Your task to perform on an android device: uninstall "The Home Depot" Image 0: 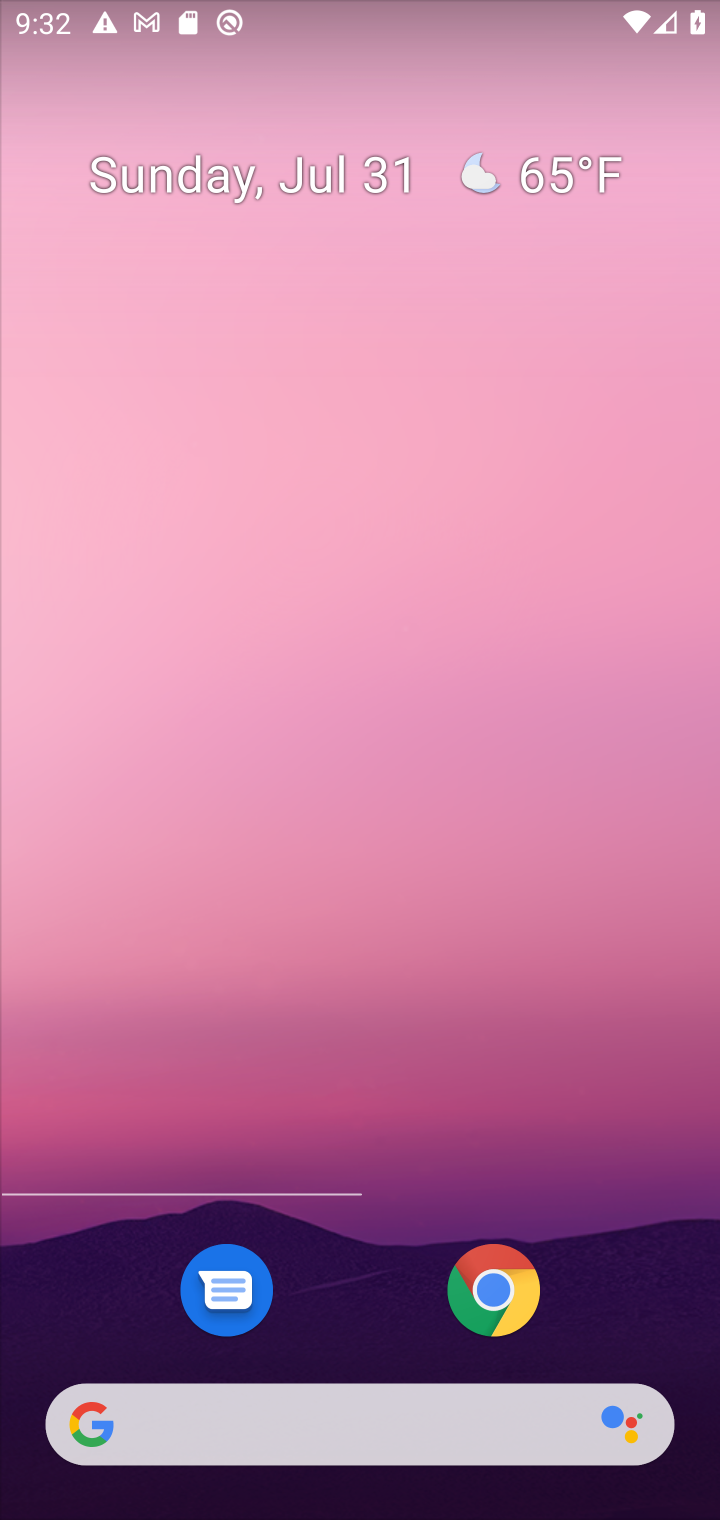
Step 0: press home button
Your task to perform on an android device: uninstall "The Home Depot" Image 1: 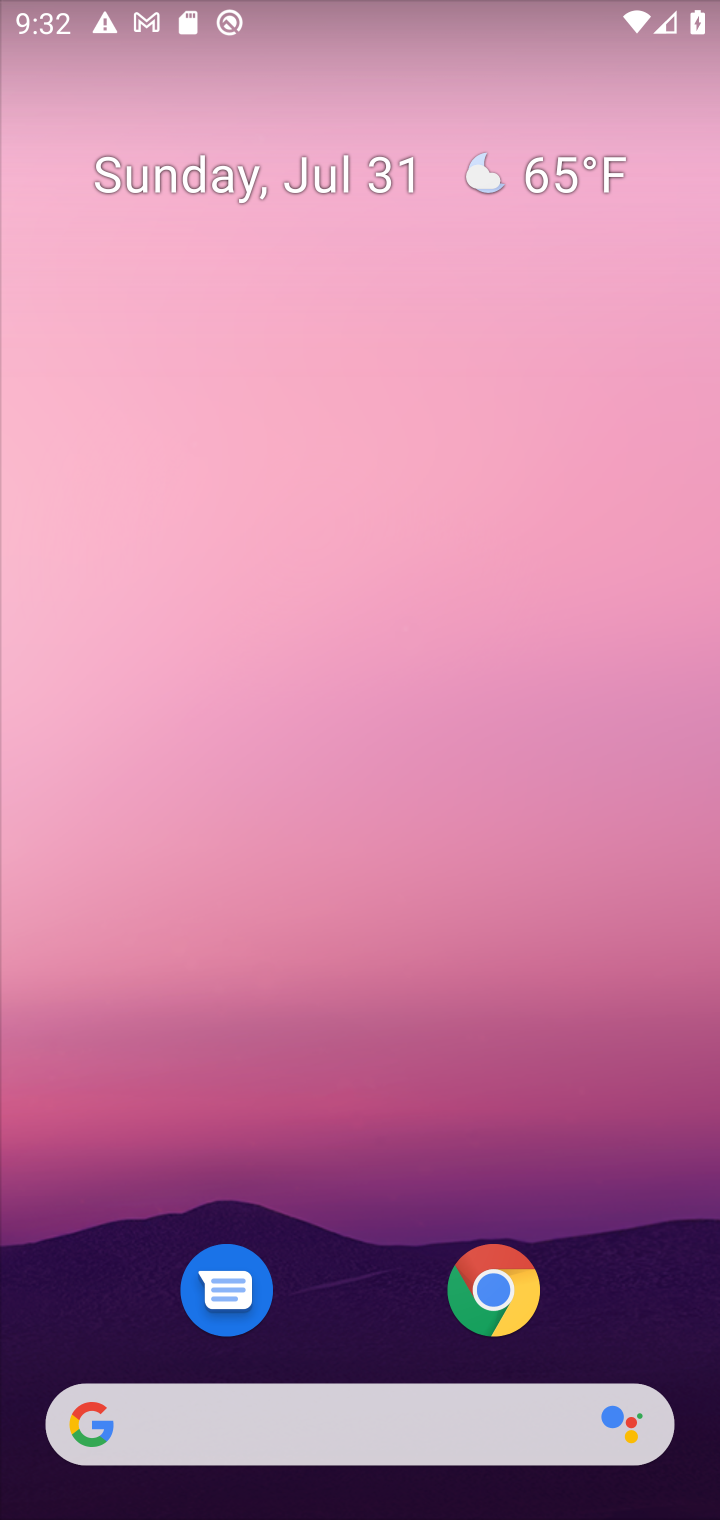
Step 1: drag from (576, 1306) to (517, 124)
Your task to perform on an android device: uninstall "The Home Depot" Image 2: 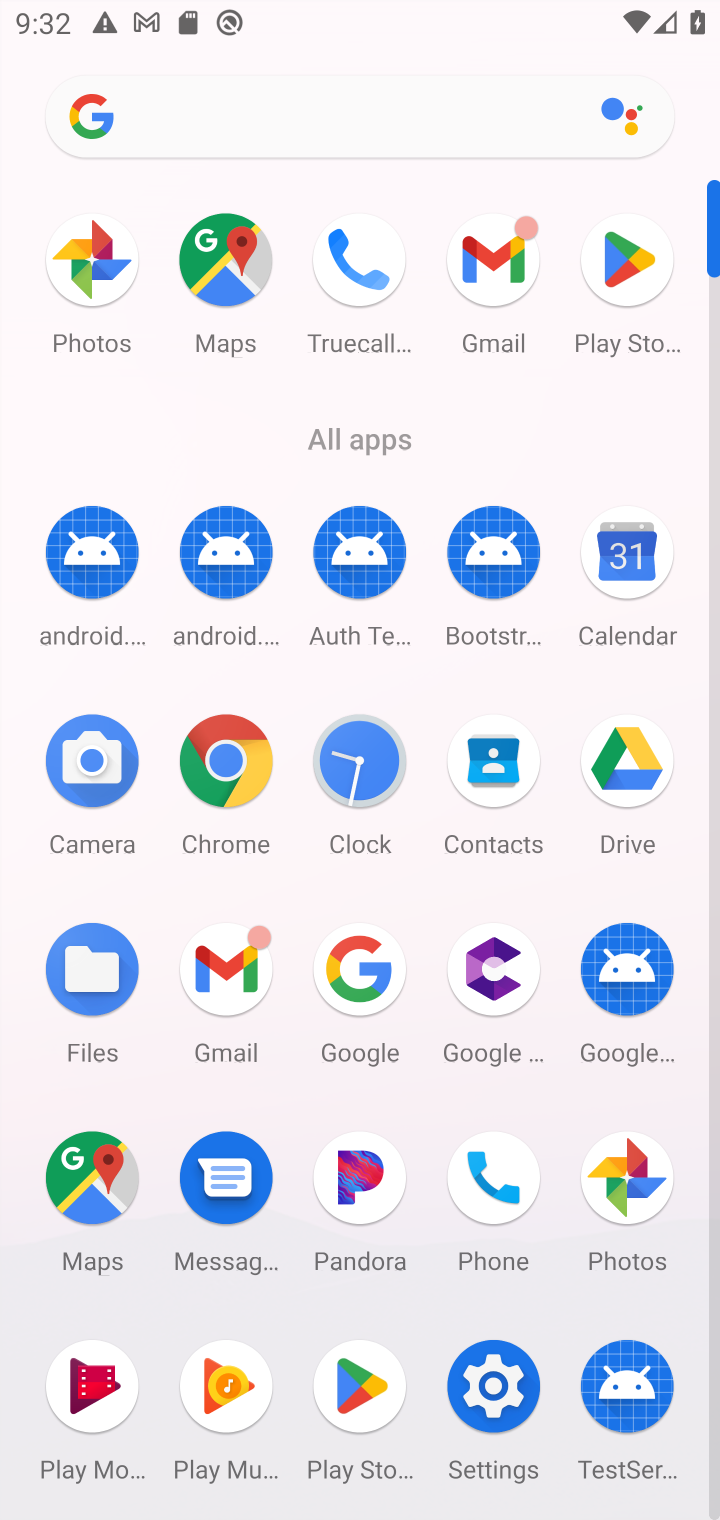
Step 2: click (632, 277)
Your task to perform on an android device: uninstall "The Home Depot" Image 3: 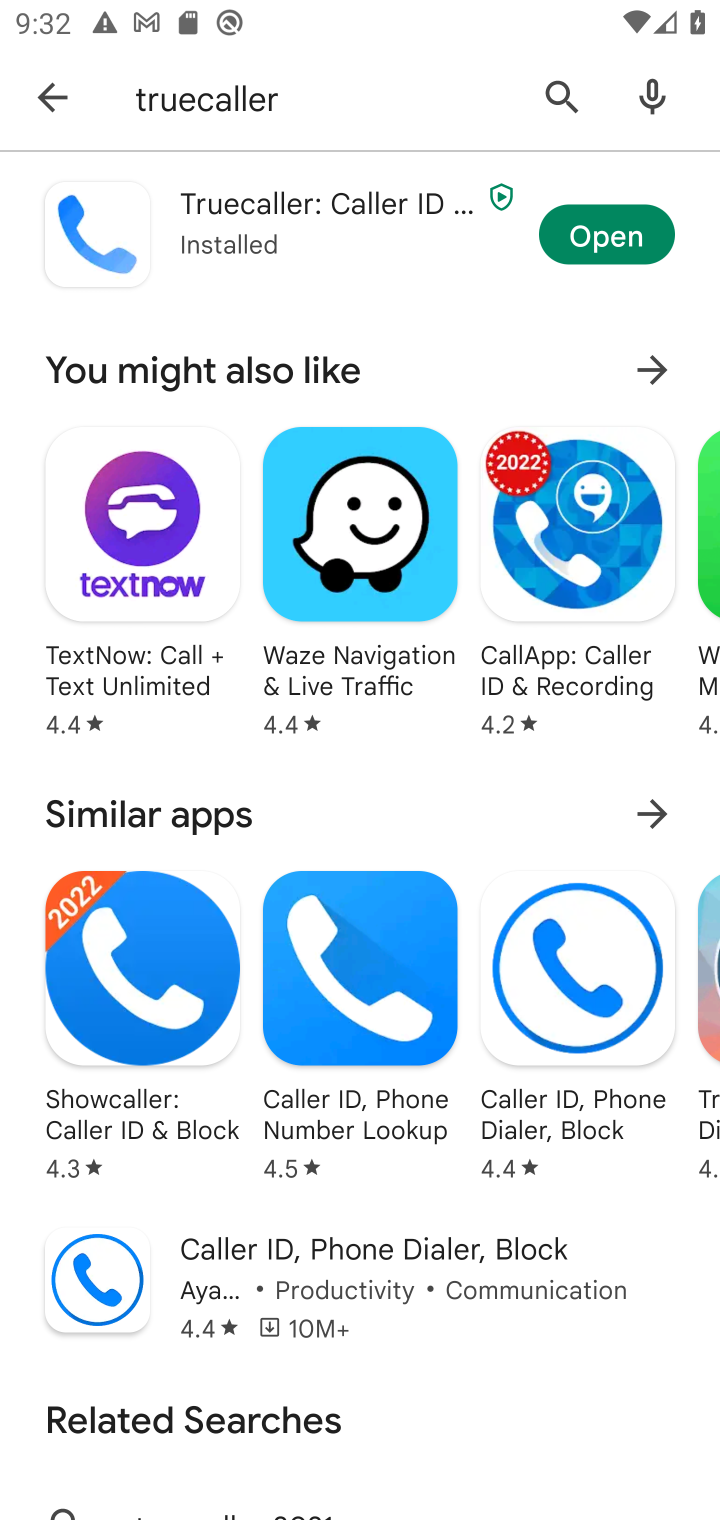
Step 3: click (571, 92)
Your task to perform on an android device: uninstall "The Home Depot" Image 4: 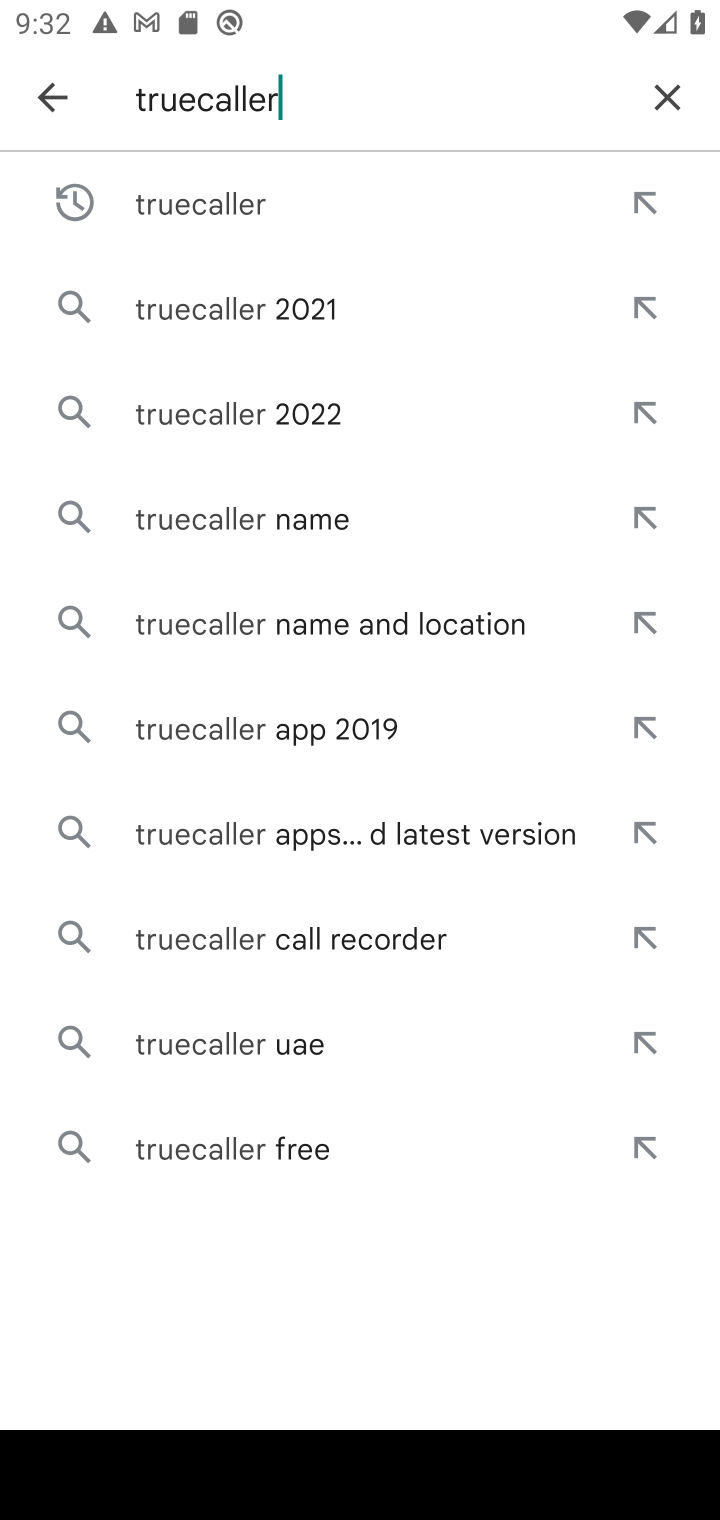
Step 4: click (674, 109)
Your task to perform on an android device: uninstall "The Home Depot" Image 5: 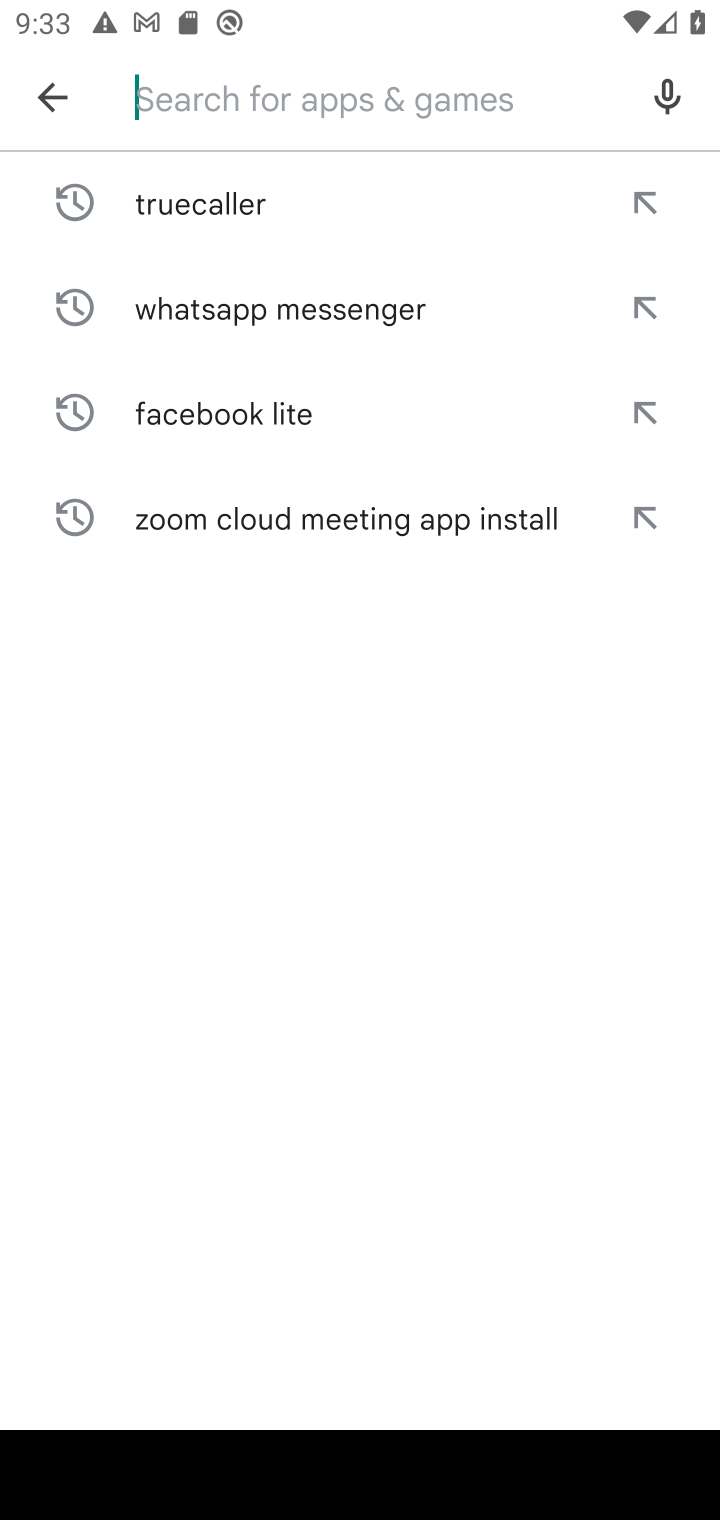
Step 5: type "the home depot"
Your task to perform on an android device: uninstall "The Home Depot" Image 6: 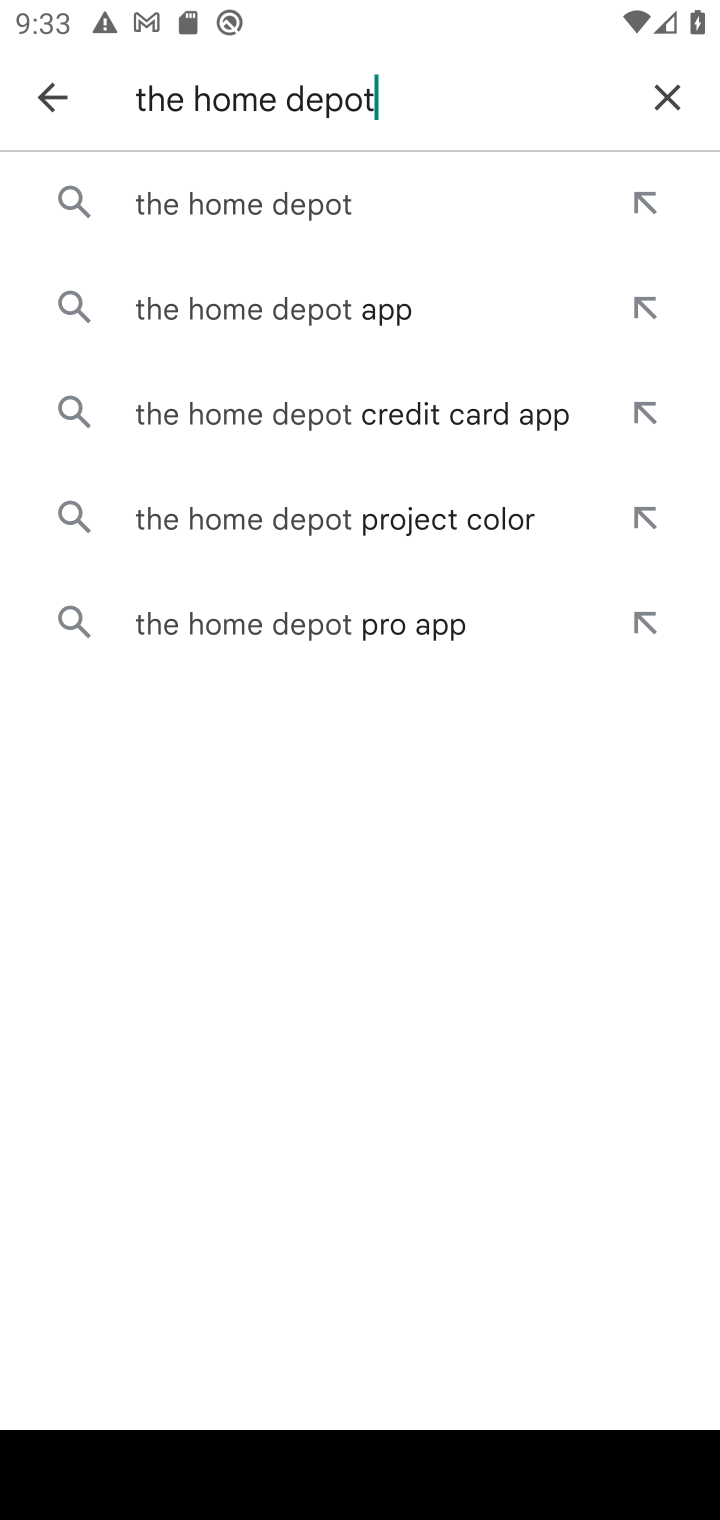
Step 6: click (389, 185)
Your task to perform on an android device: uninstall "The Home Depot" Image 7: 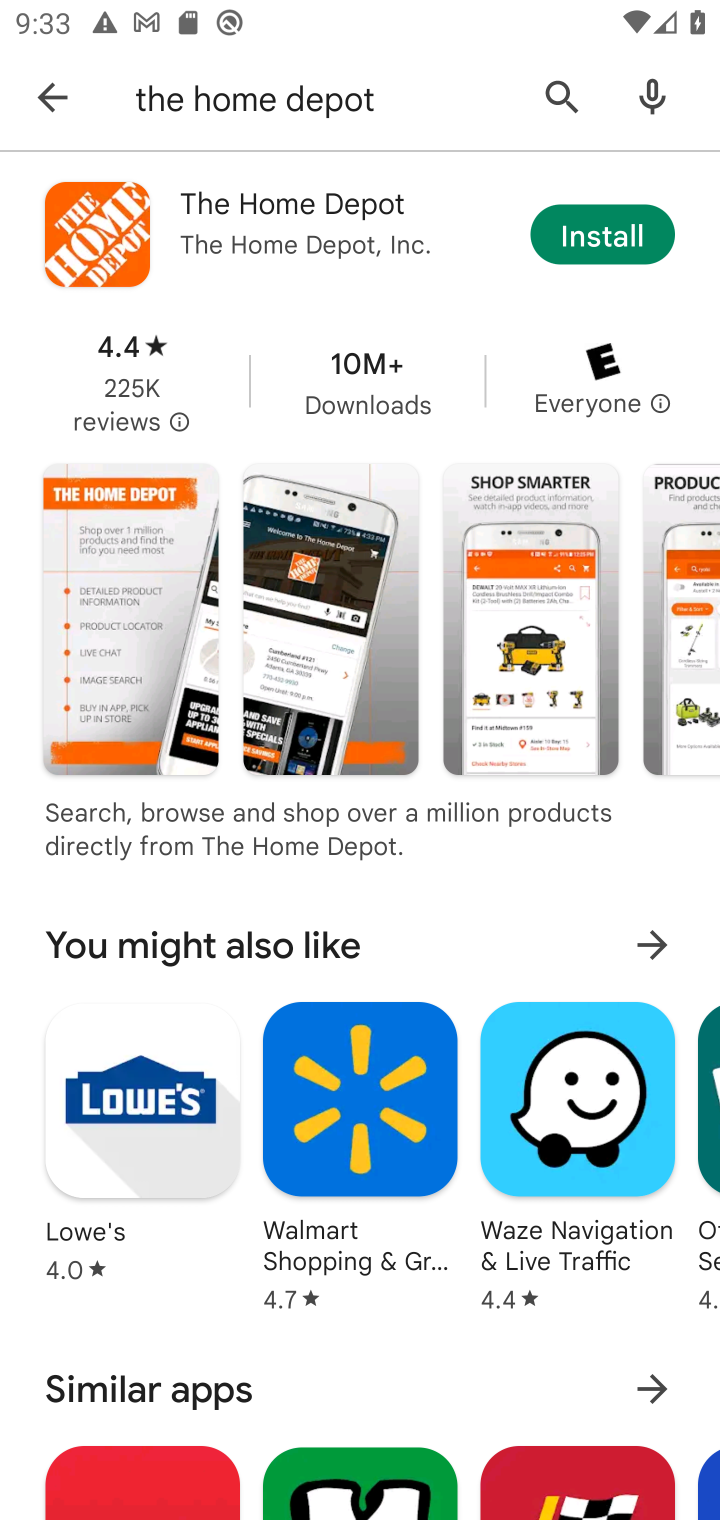
Step 7: task complete